Your task to perform on an android device: Set the phone to "Do not disturb". Image 0: 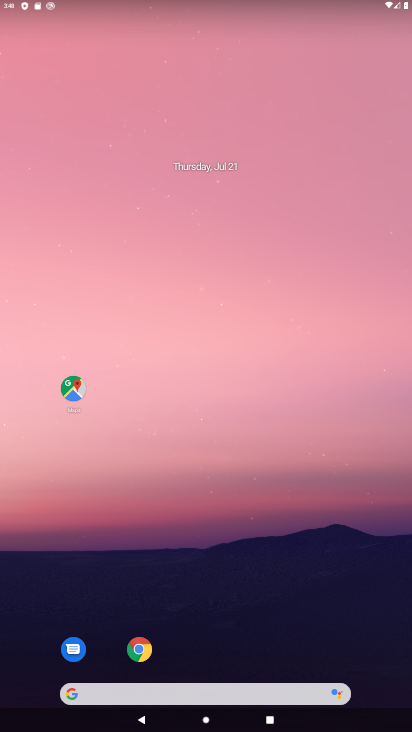
Step 0: drag from (196, 655) to (122, 163)
Your task to perform on an android device: Set the phone to "Do not disturb". Image 1: 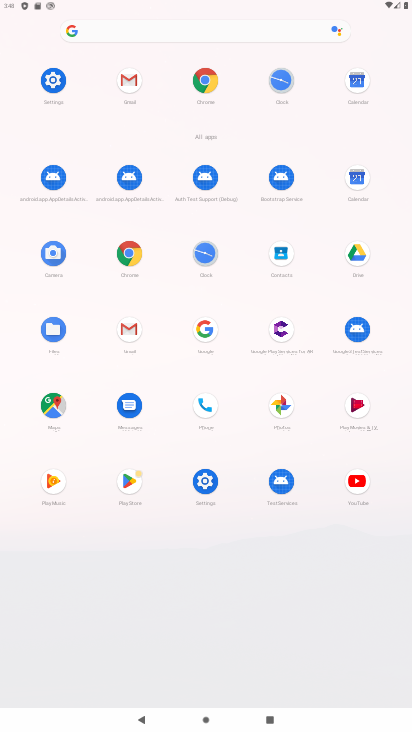
Step 1: click (207, 490)
Your task to perform on an android device: Set the phone to "Do not disturb". Image 2: 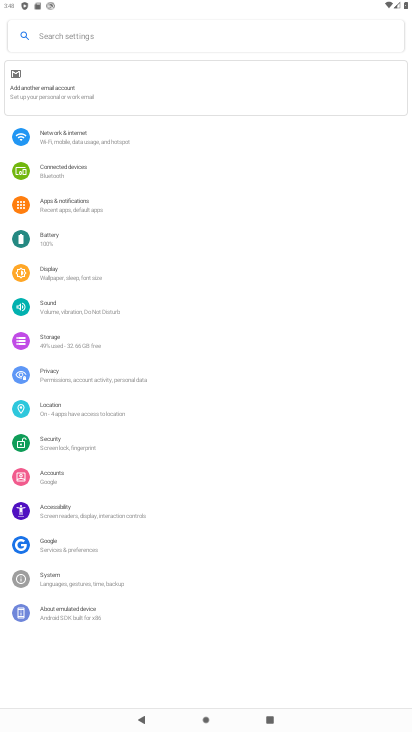
Step 2: click (118, 318)
Your task to perform on an android device: Set the phone to "Do not disturb". Image 3: 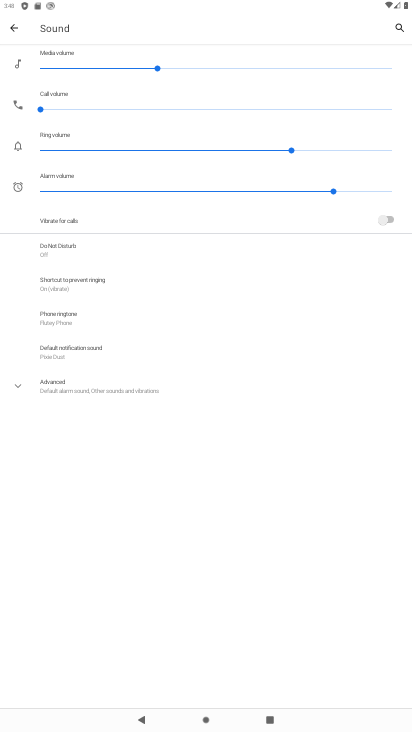
Step 3: click (56, 249)
Your task to perform on an android device: Set the phone to "Do not disturb". Image 4: 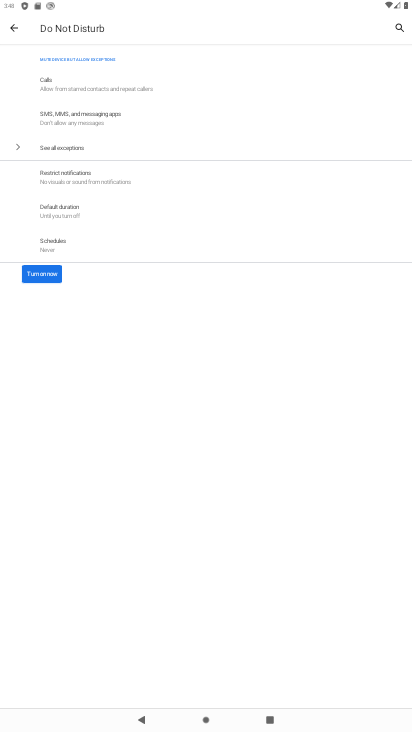
Step 4: click (33, 277)
Your task to perform on an android device: Set the phone to "Do not disturb". Image 5: 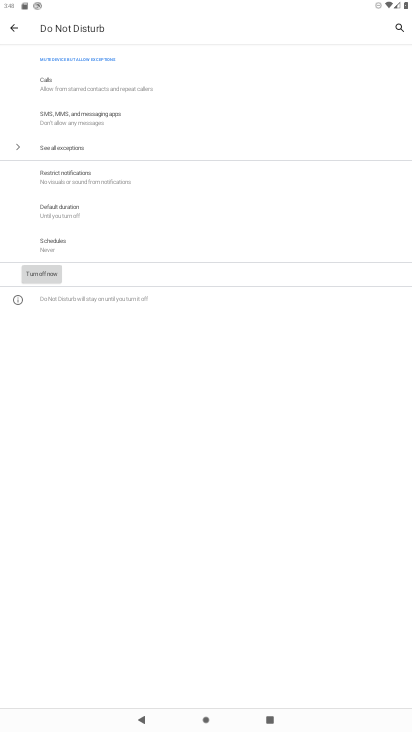
Step 5: task complete